Your task to perform on an android device: turn off picture-in-picture Image 0: 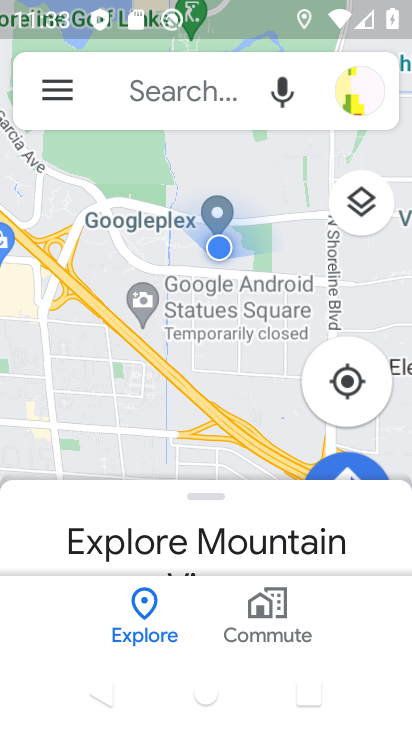
Step 0: drag from (201, 550) to (288, 241)
Your task to perform on an android device: turn off picture-in-picture Image 1: 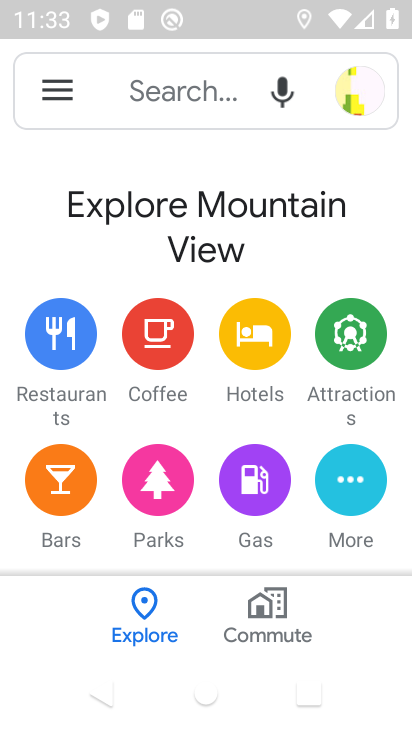
Step 1: click (48, 93)
Your task to perform on an android device: turn off picture-in-picture Image 2: 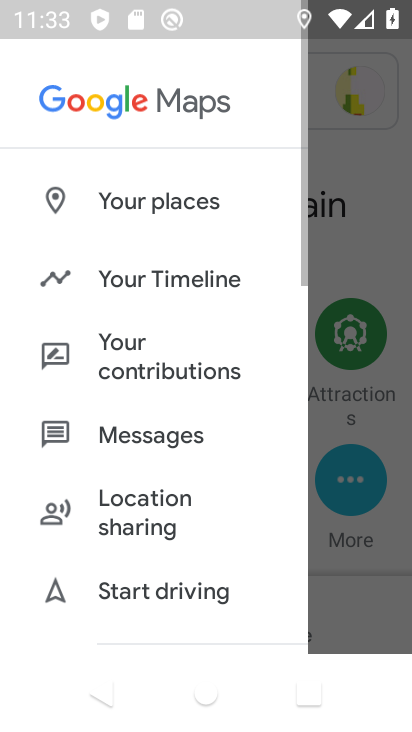
Step 2: press home button
Your task to perform on an android device: turn off picture-in-picture Image 3: 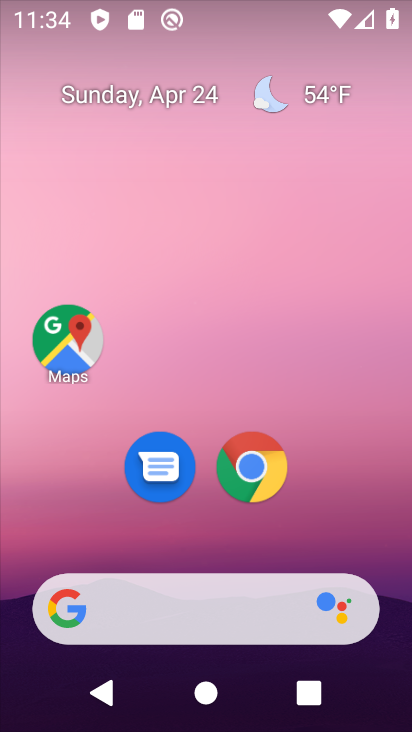
Step 3: drag from (217, 438) to (280, 30)
Your task to perform on an android device: turn off picture-in-picture Image 4: 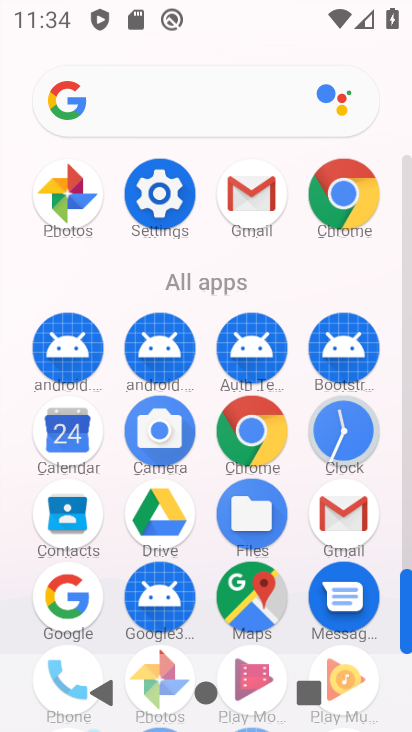
Step 4: click (157, 183)
Your task to perform on an android device: turn off picture-in-picture Image 5: 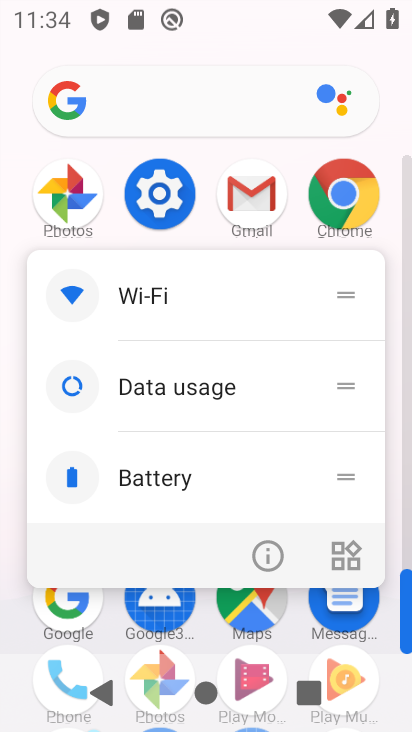
Step 5: click (277, 550)
Your task to perform on an android device: turn off picture-in-picture Image 6: 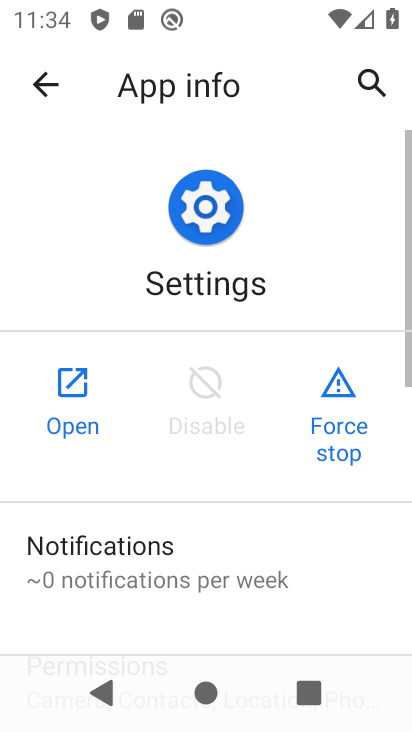
Step 6: click (74, 396)
Your task to perform on an android device: turn off picture-in-picture Image 7: 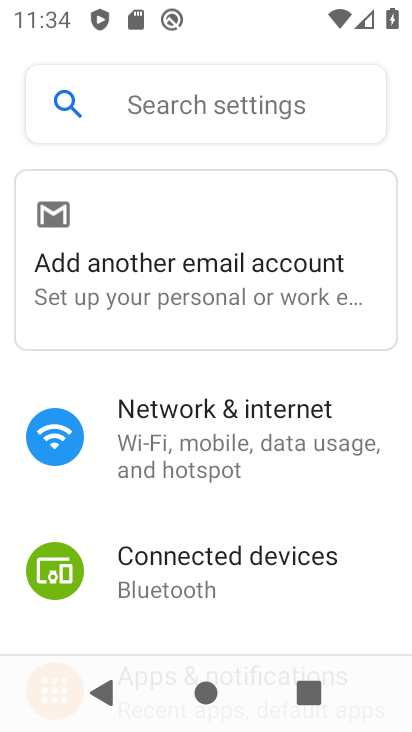
Step 7: drag from (237, 558) to (326, 69)
Your task to perform on an android device: turn off picture-in-picture Image 8: 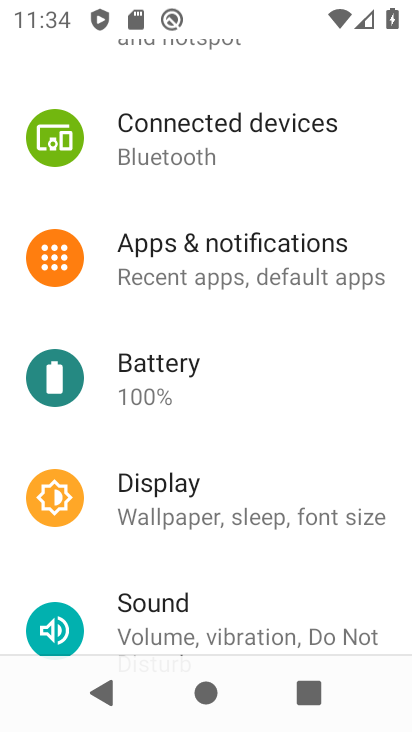
Step 8: click (197, 265)
Your task to perform on an android device: turn off picture-in-picture Image 9: 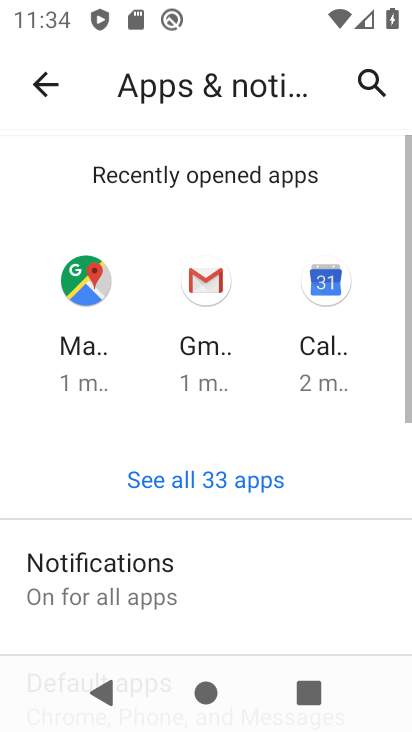
Step 9: drag from (160, 544) to (210, 181)
Your task to perform on an android device: turn off picture-in-picture Image 10: 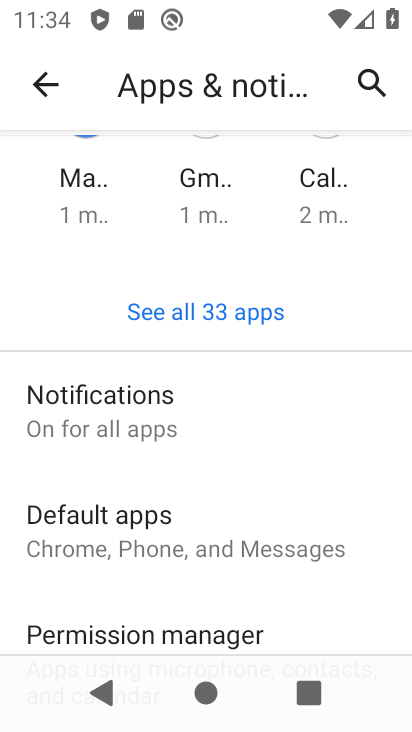
Step 10: drag from (196, 523) to (266, 213)
Your task to perform on an android device: turn off picture-in-picture Image 11: 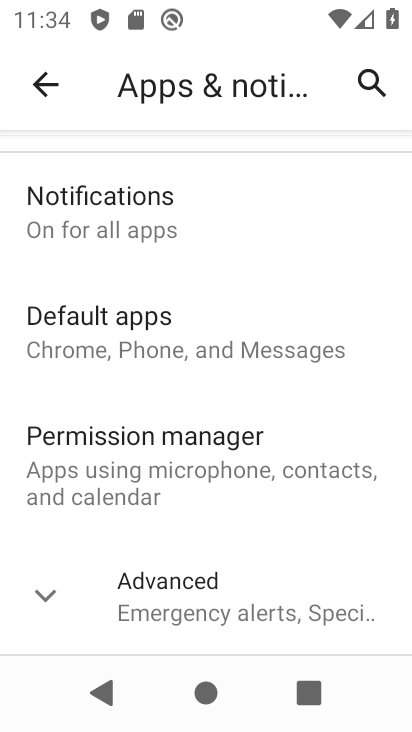
Step 11: drag from (165, 597) to (246, 204)
Your task to perform on an android device: turn off picture-in-picture Image 12: 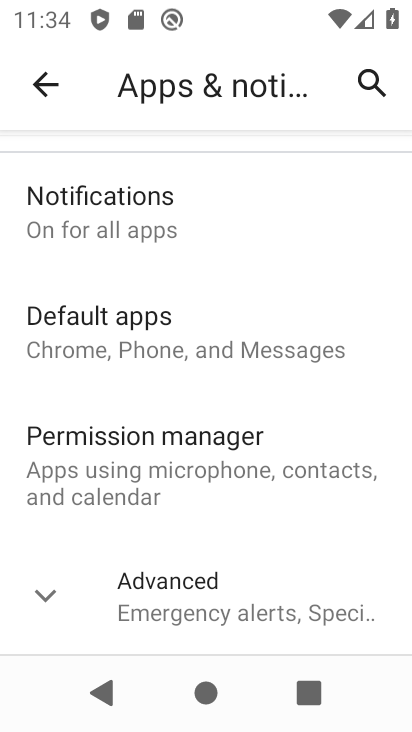
Step 12: click (139, 594)
Your task to perform on an android device: turn off picture-in-picture Image 13: 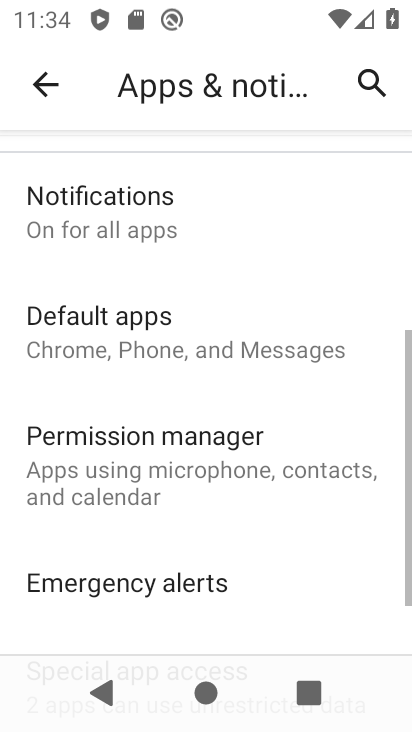
Step 13: drag from (206, 573) to (285, 95)
Your task to perform on an android device: turn off picture-in-picture Image 14: 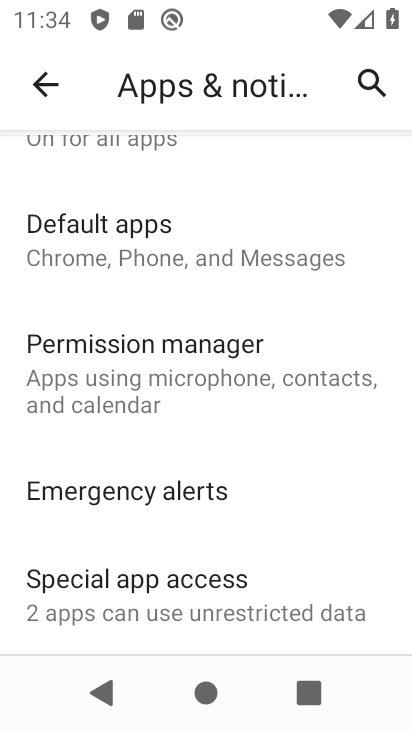
Step 14: click (191, 584)
Your task to perform on an android device: turn off picture-in-picture Image 15: 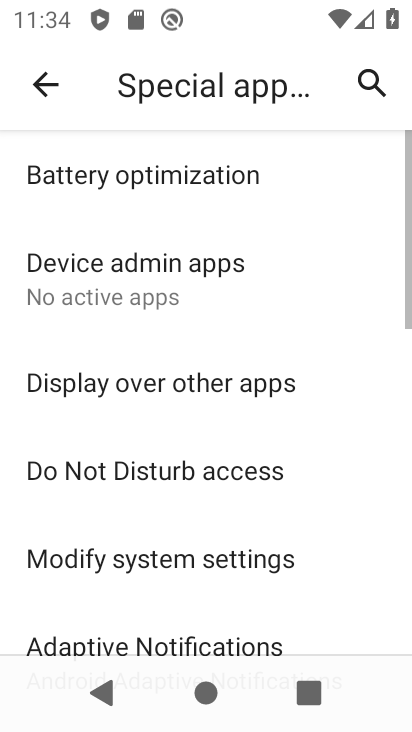
Step 15: drag from (195, 558) to (239, 176)
Your task to perform on an android device: turn off picture-in-picture Image 16: 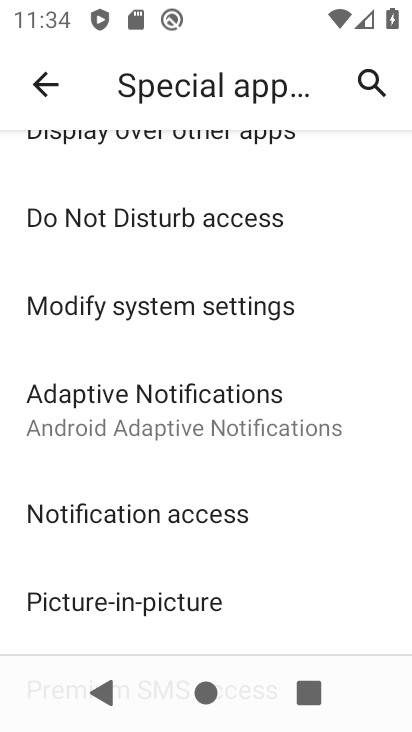
Step 16: click (122, 590)
Your task to perform on an android device: turn off picture-in-picture Image 17: 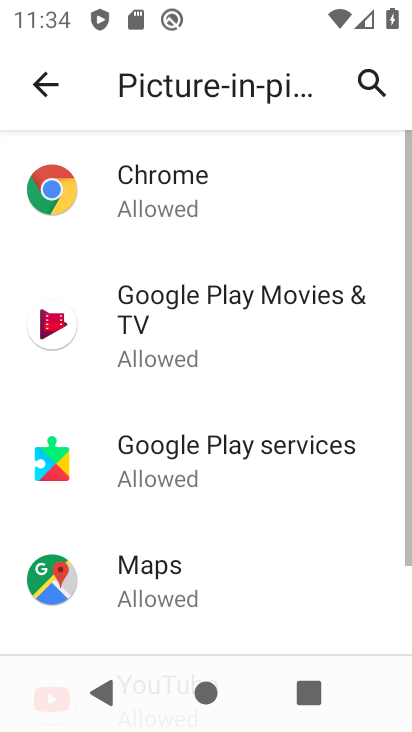
Step 17: task complete